Your task to perform on an android device: toggle notifications settings in the gmail app Image 0: 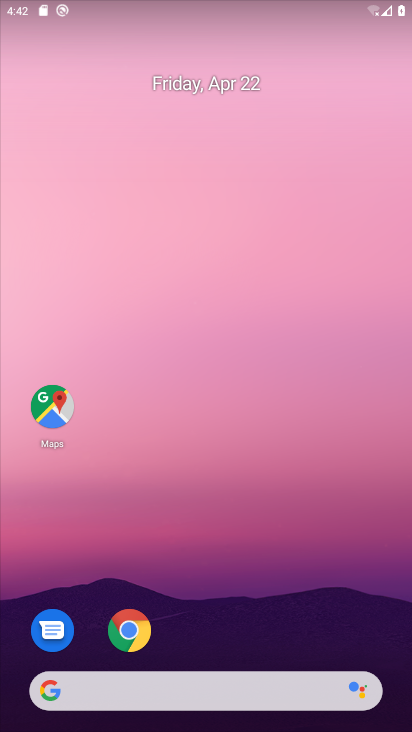
Step 0: drag from (274, 633) to (220, 7)
Your task to perform on an android device: toggle notifications settings in the gmail app Image 1: 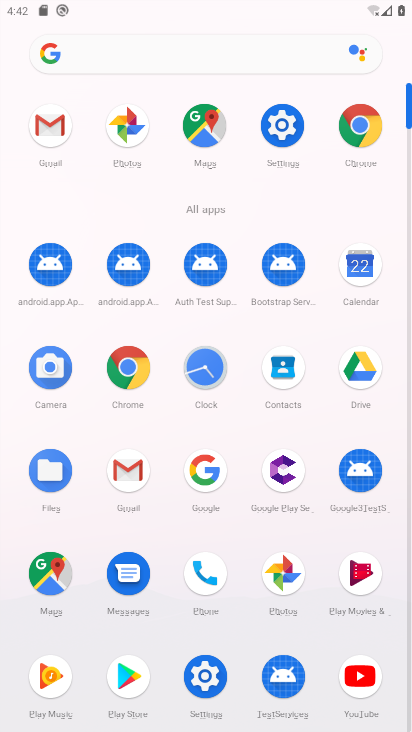
Step 1: click (126, 485)
Your task to perform on an android device: toggle notifications settings in the gmail app Image 2: 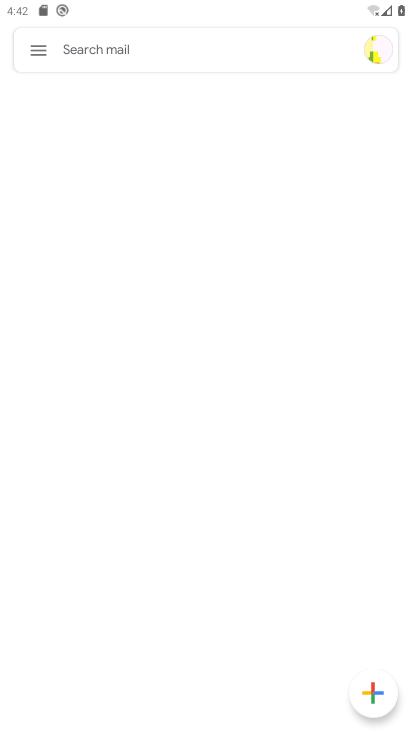
Step 2: click (40, 52)
Your task to perform on an android device: toggle notifications settings in the gmail app Image 3: 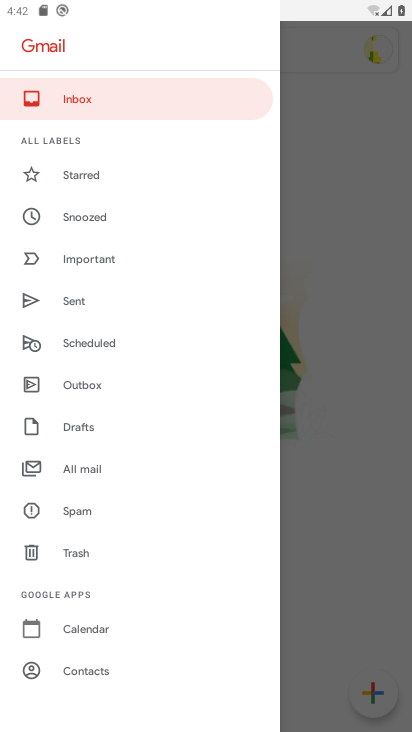
Step 3: drag from (107, 688) to (113, 280)
Your task to perform on an android device: toggle notifications settings in the gmail app Image 4: 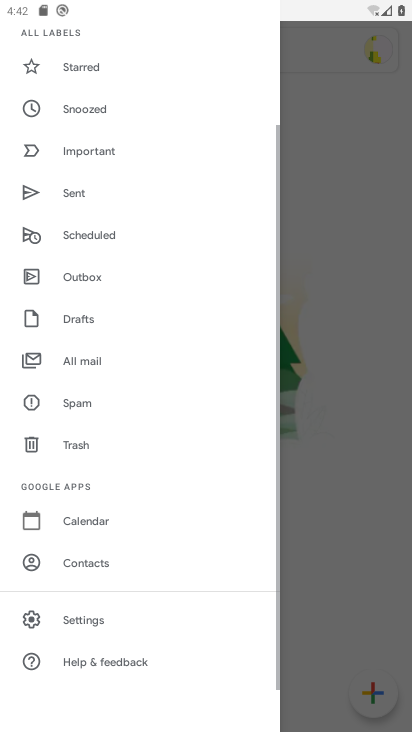
Step 4: click (130, 613)
Your task to perform on an android device: toggle notifications settings in the gmail app Image 5: 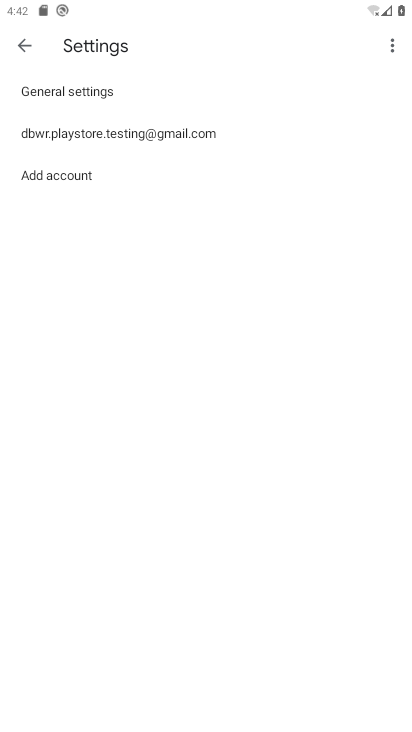
Step 5: click (128, 129)
Your task to perform on an android device: toggle notifications settings in the gmail app Image 6: 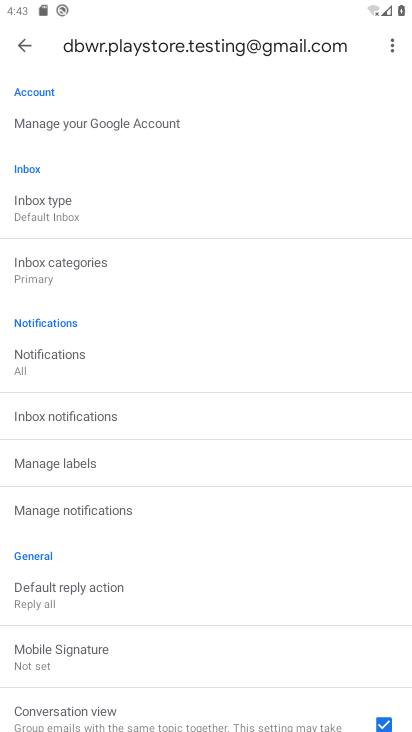
Step 6: click (72, 496)
Your task to perform on an android device: toggle notifications settings in the gmail app Image 7: 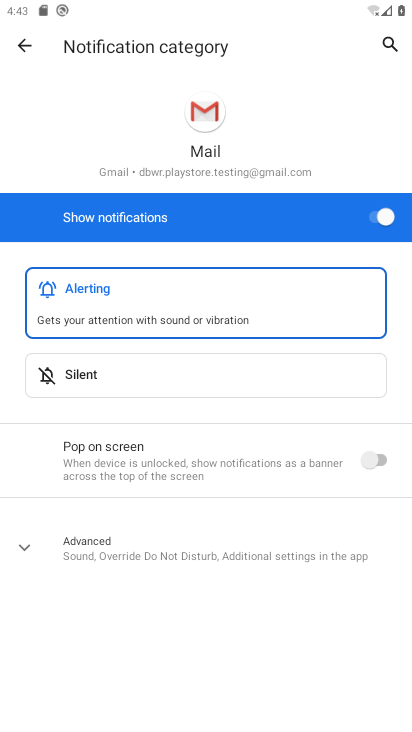
Step 7: click (371, 219)
Your task to perform on an android device: toggle notifications settings in the gmail app Image 8: 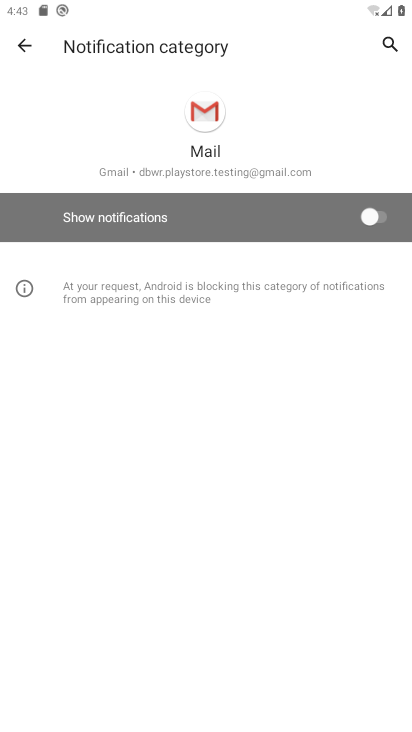
Step 8: task complete